Your task to perform on an android device: turn on translation in the chrome app Image 0: 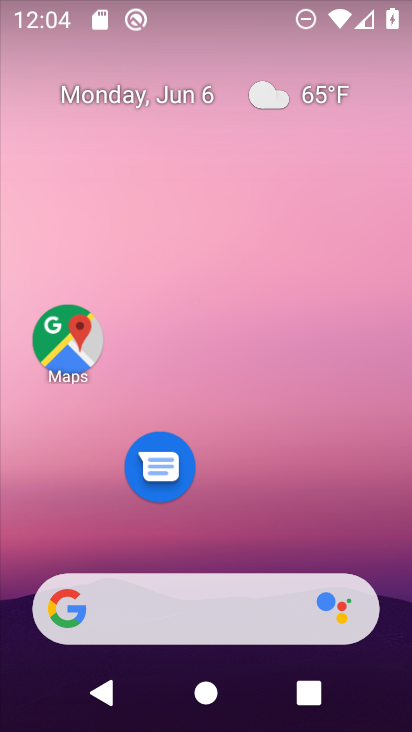
Step 0: press home button
Your task to perform on an android device: turn on translation in the chrome app Image 1: 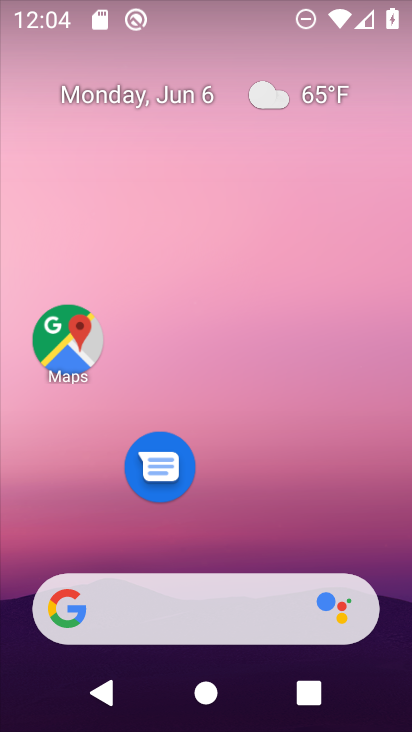
Step 1: drag from (398, 579) to (358, 110)
Your task to perform on an android device: turn on translation in the chrome app Image 2: 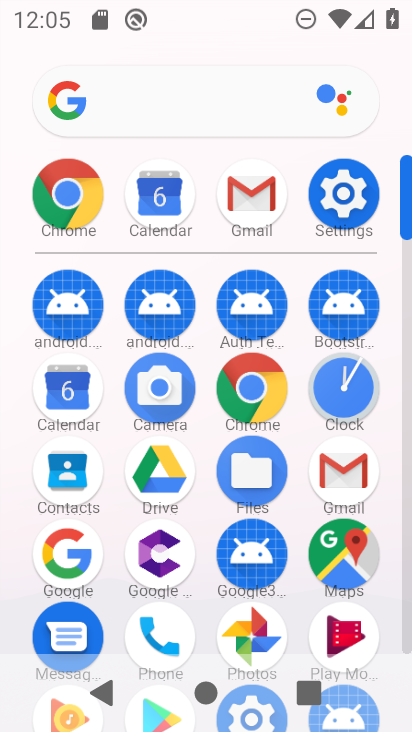
Step 2: click (62, 201)
Your task to perform on an android device: turn on translation in the chrome app Image 3: 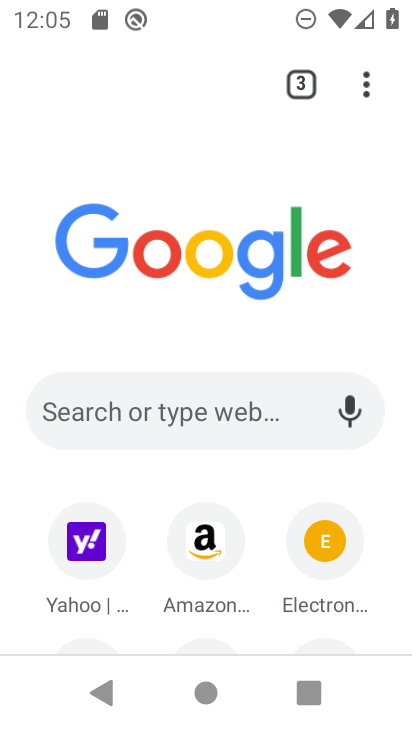
Step 3: click (363, 82)
Your task to perform on an android device: turn on translation in the chrome app Image 4: 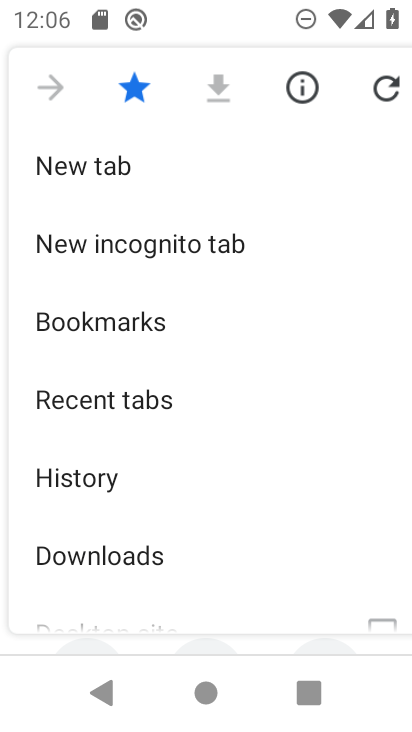
Step 4: drag from (140, 579) to (194, 373)
Your task to perform on an android device: turn on translation in the chrome app Image 5: 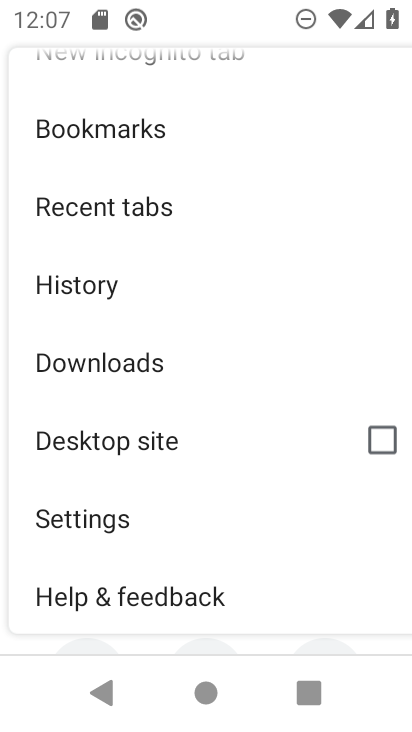
Step 5: click (136, 535)
Your task to perform on an android device: turn on translation in the chrome app Image 6: 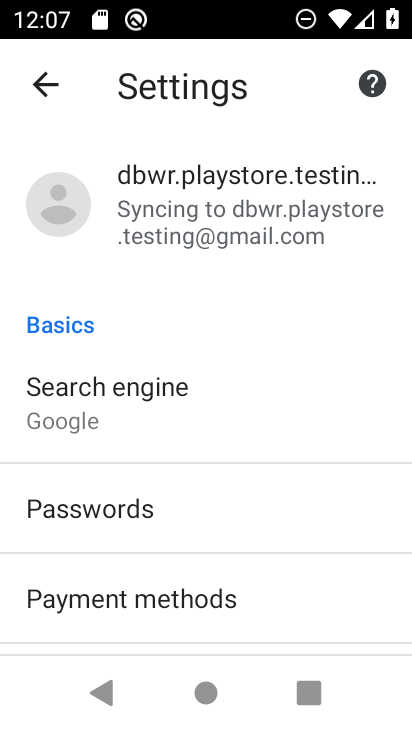
Step 6: drag from (306, 617) to (301, 239)
Your task to perform on an android device: turn on translation in the chrome app Image 7: 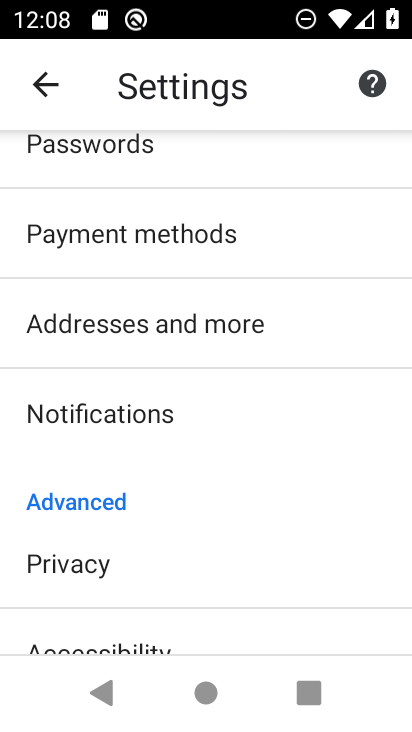
Step 7: drag from (89, 574) to (119, 132)
Your task to perform on an android device: turn on translation in the chrome app Image 8: 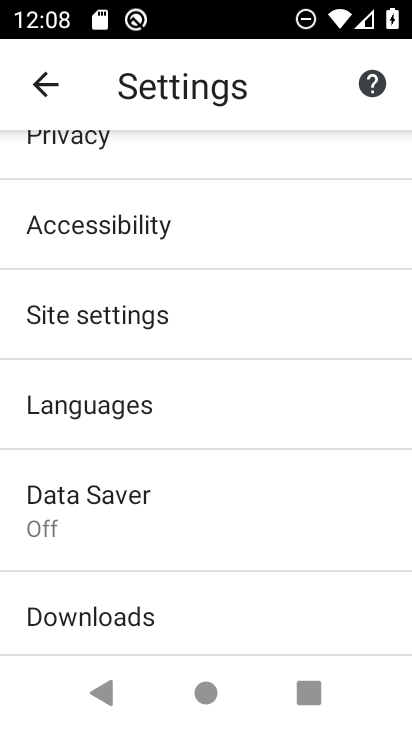
Step 8: click (100, 430)
Your task to perform on an android device: turn on translation in the chrome app Image 9: 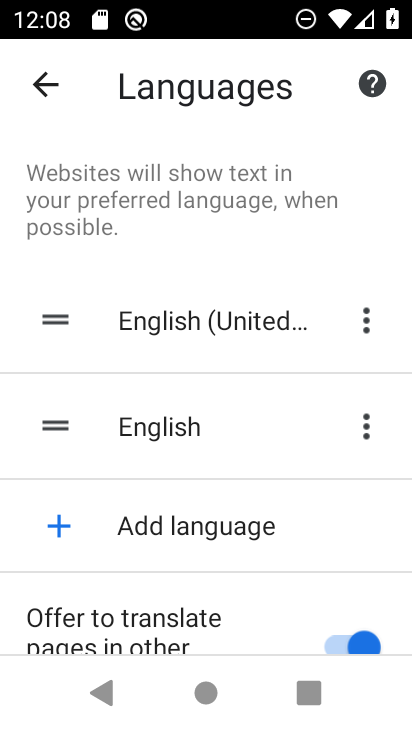
Step 9: task complete